Your task to perform on an android device: open app "File Manager" Image 0: 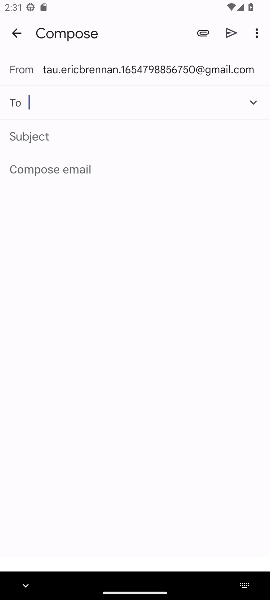
Step 0: press home button
Your task to perform on an android device: open app "File Manager" Image 1: 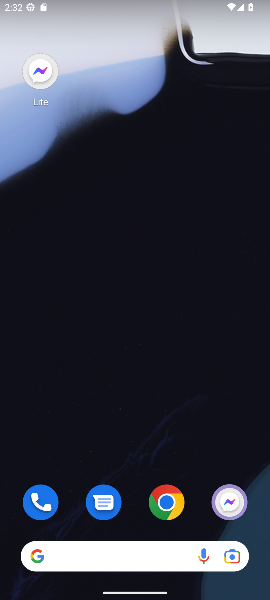
Step 1: drag from (136, 470) to (144, 8)
Your task to perform on an android device: open app "File Manager" Image 2: 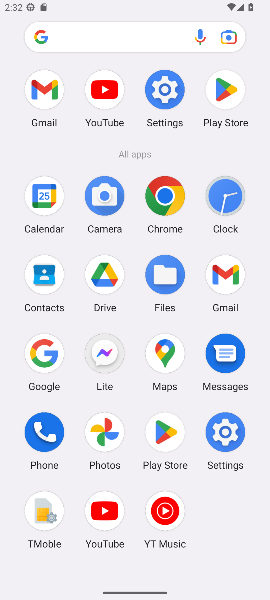
Step 2: click (162, 290)
Your task to perform on an android device: open app "File Manager" Image 3: 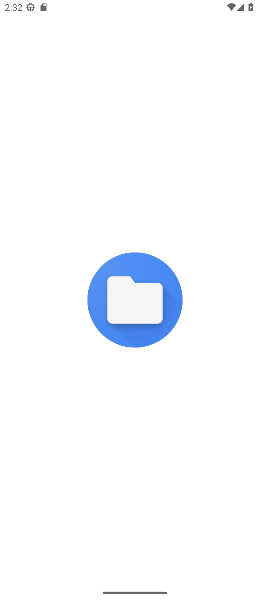
Step 3: task complete